Your task to perform on an android device: Open wifi settings Image 0: 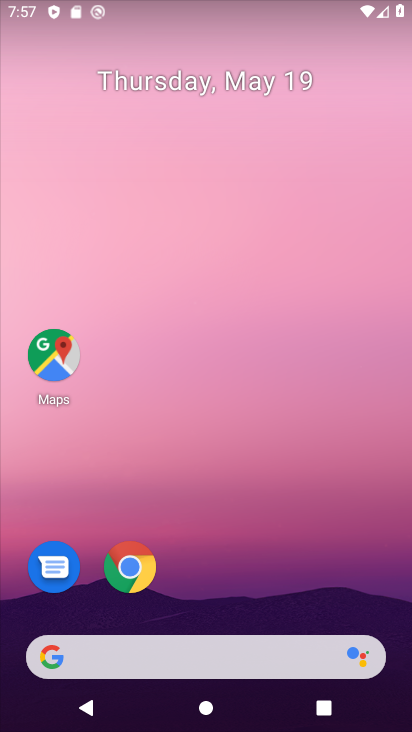
Step 0: drag from (296, 9) to (360, 645)
Your task to perform on an android device: Open wifi settings Image 1: 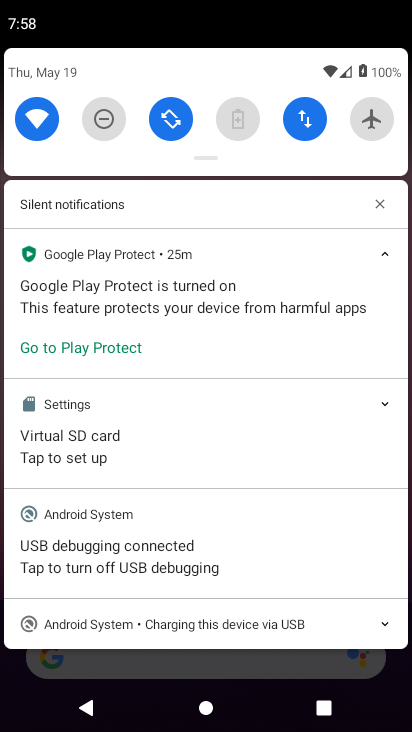
Step 1: click (33, 127)
Your task to perform on an android device: Open wifi settings Image 2: 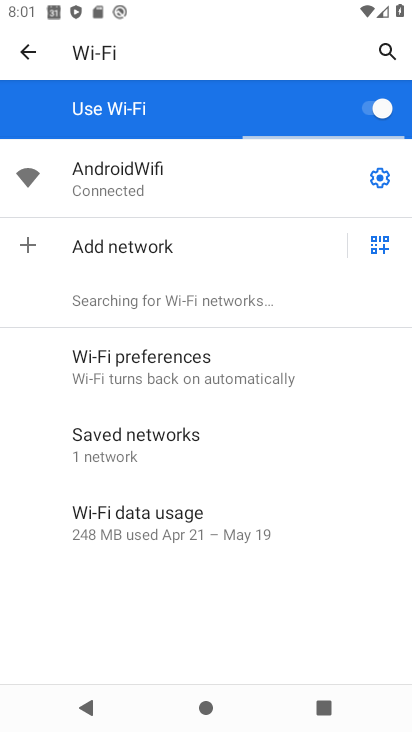
Step 2: task complete